Your task to perform on an android device: allow cookies in the chrome app Image 0: 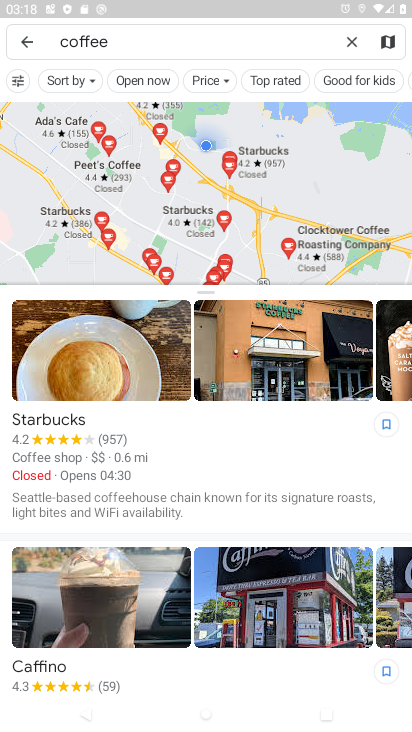
Step 0: drag from (258, 10) to (275, 546)
Your task to perform on an android device: allow cookies in the chrome app Image 1: 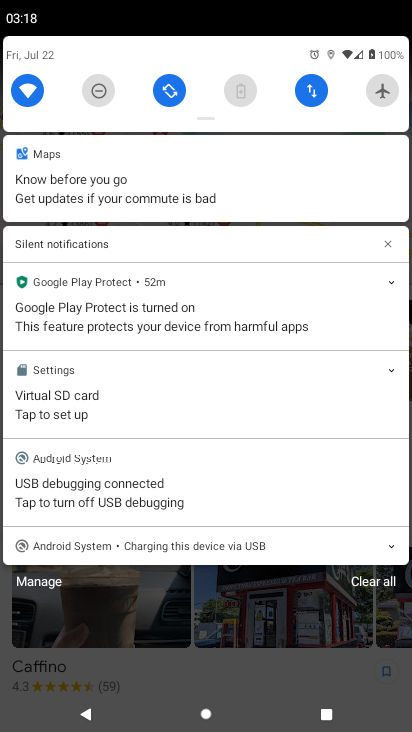
Step 1: click (143, 604)
Your task to perform on an android device: allow cookies in the chrome app Image 2: 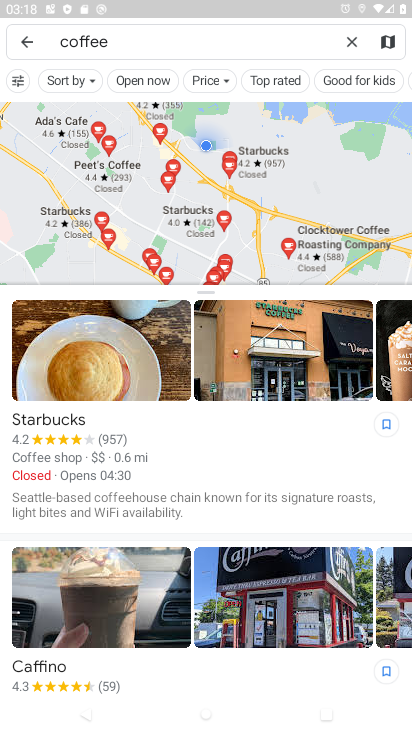
Step 2: press home button
Your task to perform on an android device: allow cookies in the chrome app Image 3: 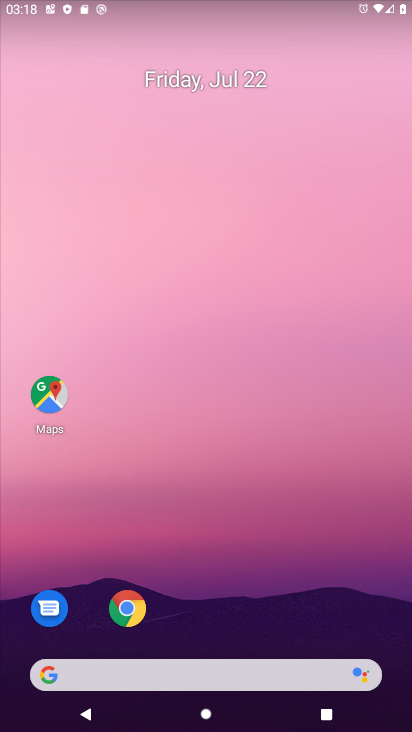
Step 3: click (139, 608)
Your task to perform on an android device: allow cookies in the chrome app Image 4: 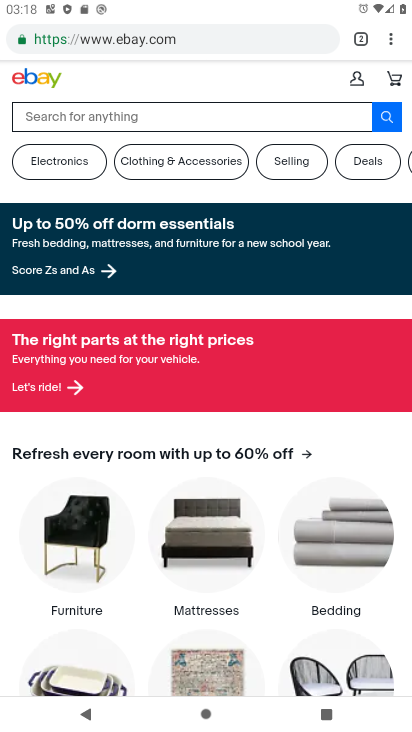
Step 4: click (402, 31)
Your task to perform on an android device: allow cookies in the chrome app Image 5: 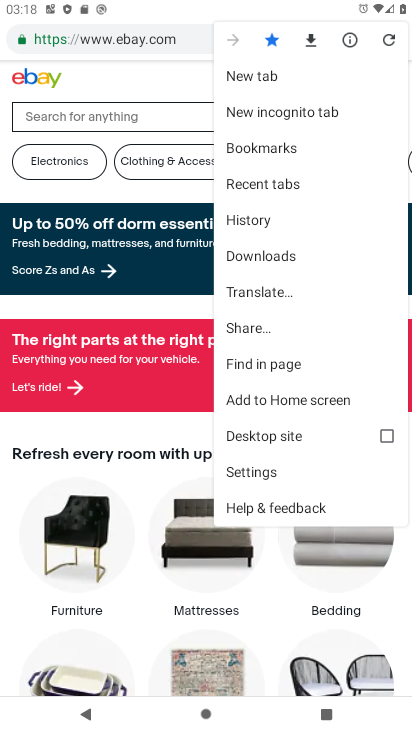
Step 5: click (307, 462)
Your task to perform on an android device: allow cookies in the chrome app Image 6: 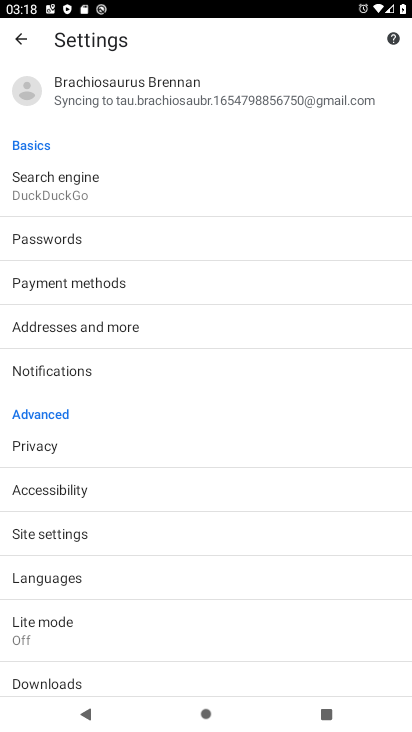
Step 6: click (86, 525)
Your task to perform on an android device: allow cookies in the chrome app Image 7: 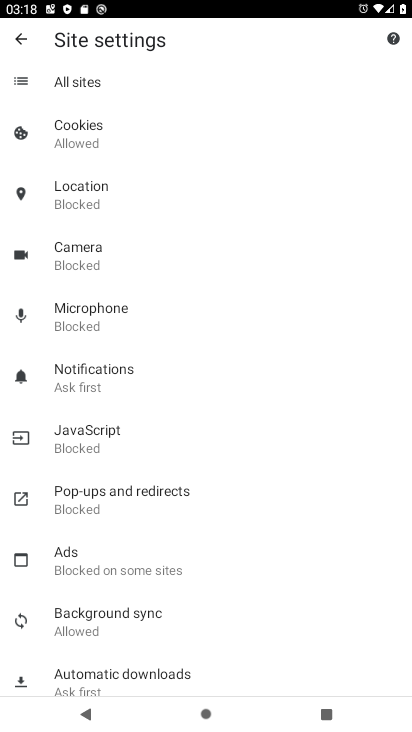
Step 7: click (151, 122)
Your task to perform on an android device: allow cookies in the chrome app Image 8: 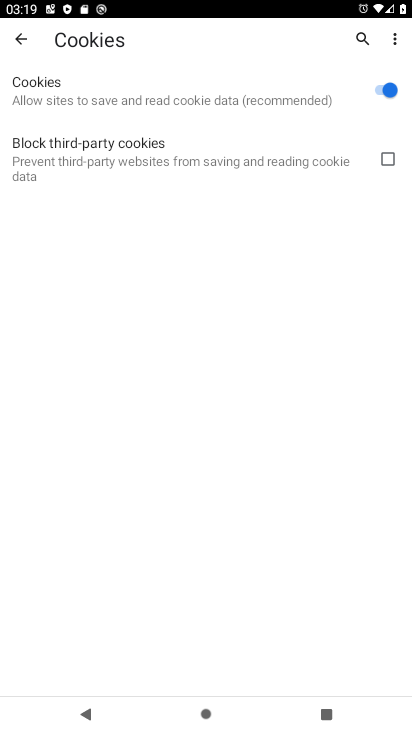
Step 8: task complete